Your task to perform on an android device: Open Google Maps Image 0: 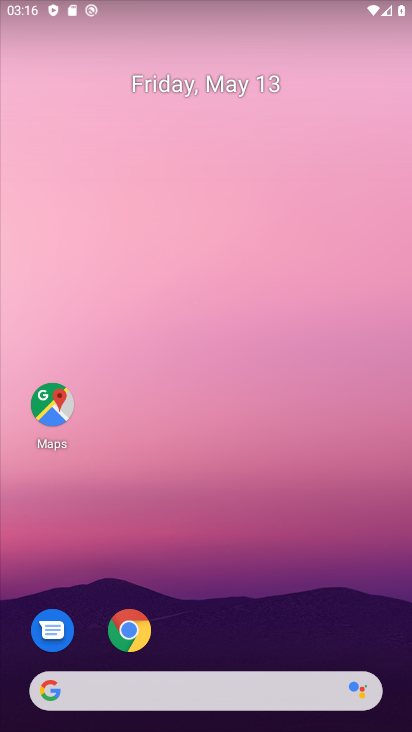
Step 0: drag from (200, 660) to (91, 42)
Your task to perform on an android device: Open Google Maps Image 1: 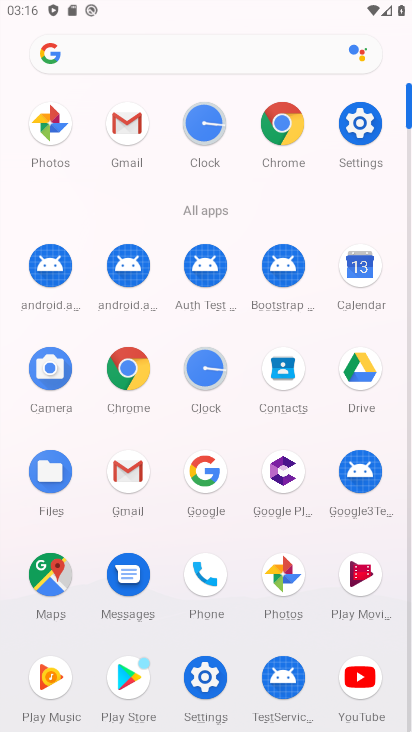
Step 1: click (56, 578)
Your task to perform on an android device: Open Google Maps Image 2: 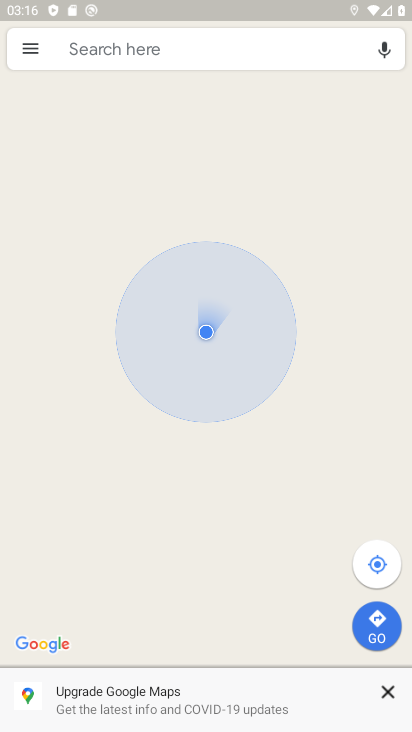
Step 2: task complete